Your task to perform on an android device: delete a single message in the gmail app Image 0: 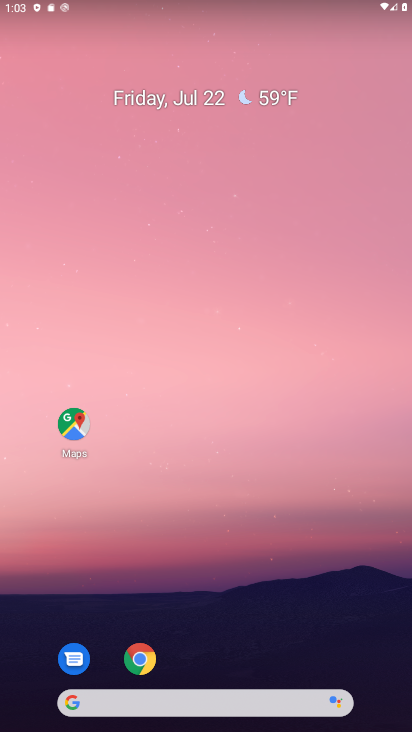
Step 0: drag from (236, 639) to (236, 172)
Your task to perform on an android device: delete a single message in the gmail app Image 1: 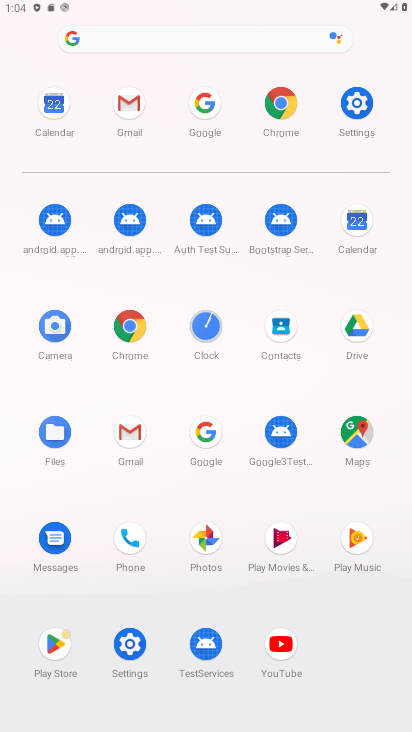
Step 1: click (136, 113)
Your task to perform on an android device: delete a single message in the gmail app Image 2: 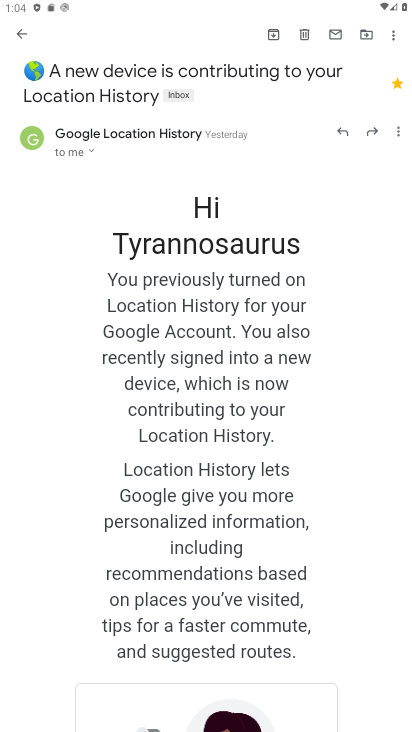
Step 2: click (388, 38)
Your task to perform on an android device: delete a single message in the gmail app Image 3: 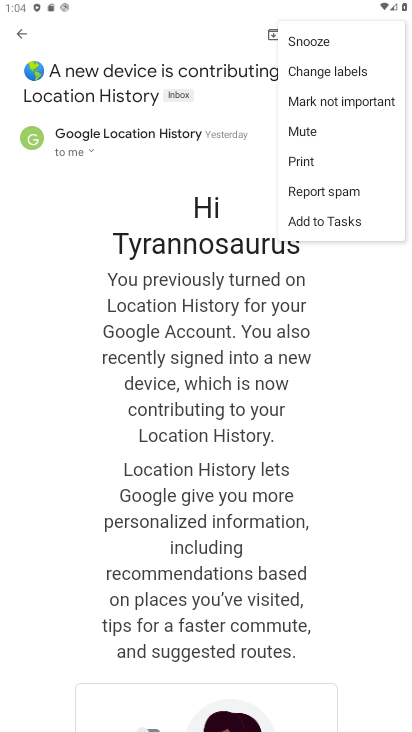
Step 3: click (249, 103)
Your task to perform on an android device: delete a single message in the gmail app Image 4: 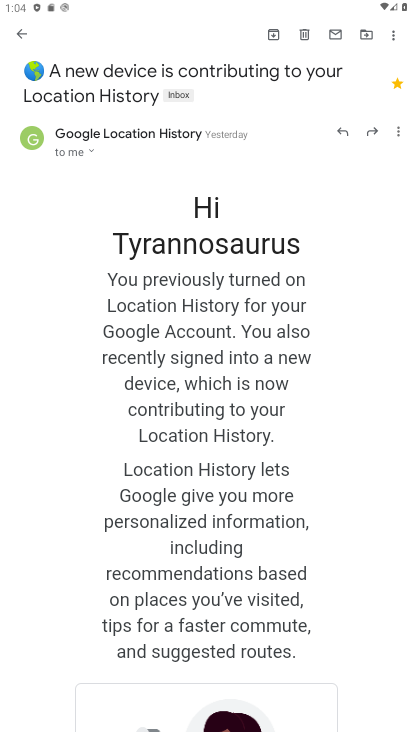
Step 4: click (303, 44)
Your task to perform on an android device: delete a single message in the gmail app Image 5: 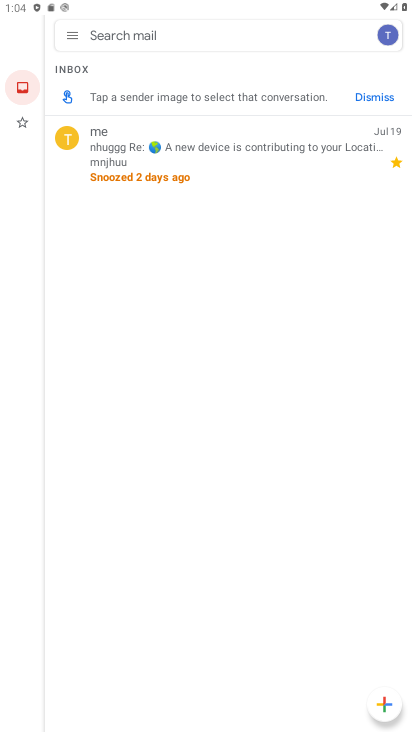
Step 5: task complete